Your task to perform on an android device: Go to Wikipedia Image 0: 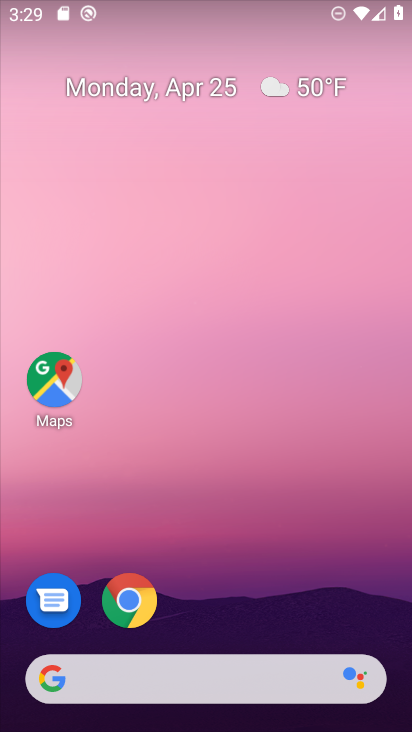
Step 0: click (147, 615)
Your task to perform on an android device: Go to Wikipedia Image 1: 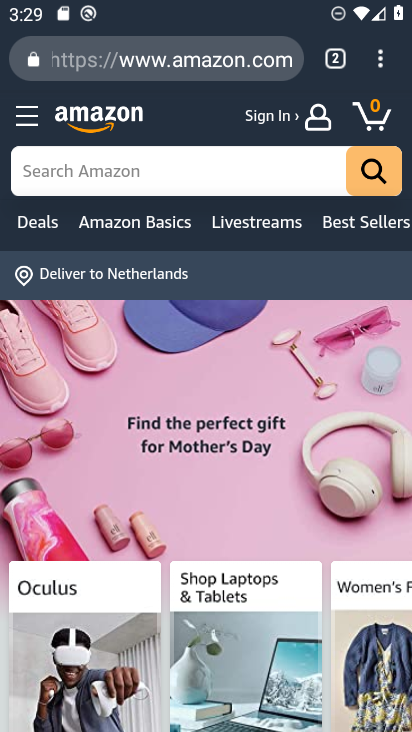
Step 1: click (327, 56)
Your task to perform on an android device: Go to Wikipedia Image 2: 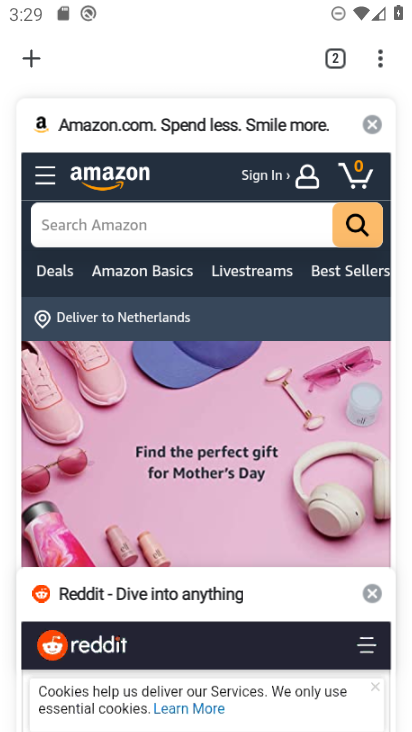
Step 2: click (36, 58)
Your task to perform on an android device: Go to Wikipedia Image 3: 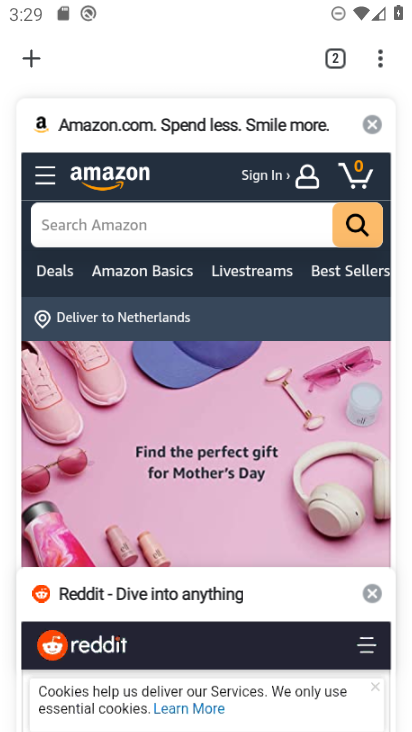
Step 3: click (37, 56)
Your task to perform on an android device: Go to Wikipedia Image 4: 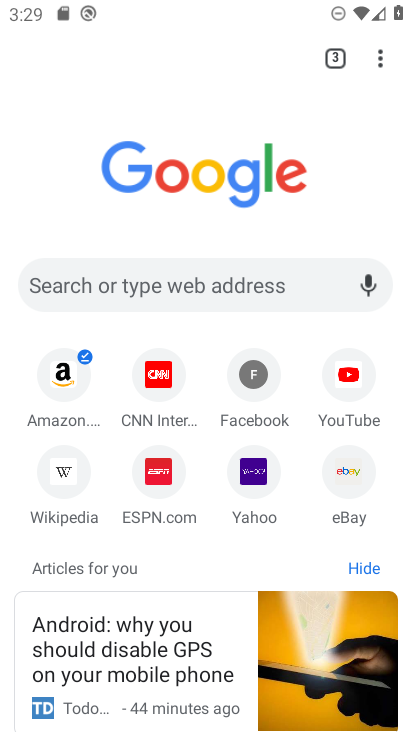
Step 4: click (66, 462)
Your task to perform on an android device: Go to Wikipedia Image 5: 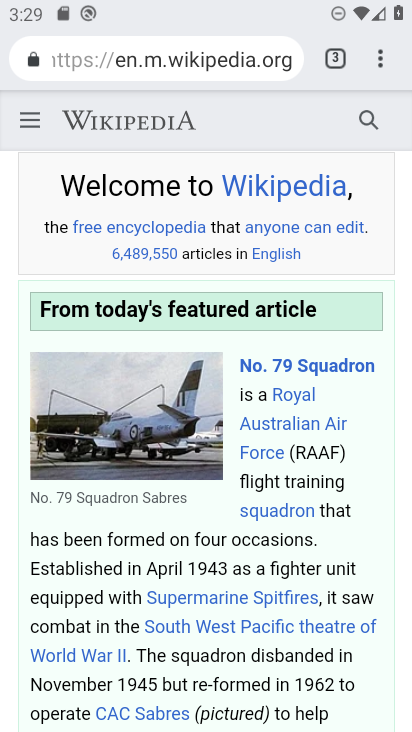
Step 5: task complete